Your task to perform on an android device: open chrome privacy settings Image 0: 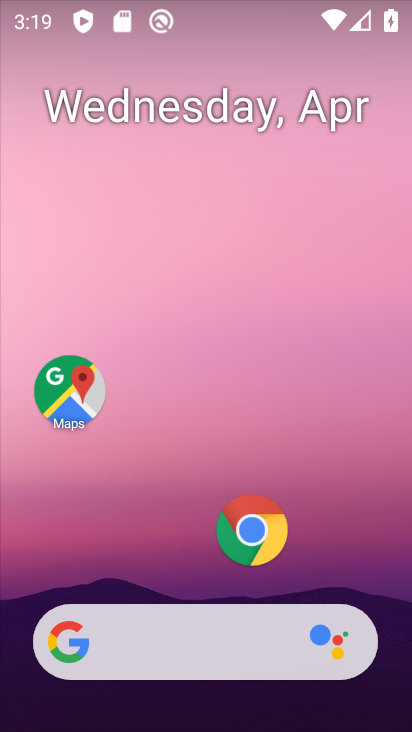
Step 0: drag from (179, 422) to (259, 77)
Your task to perform on an android device: open chrome privacy settings Image 1: 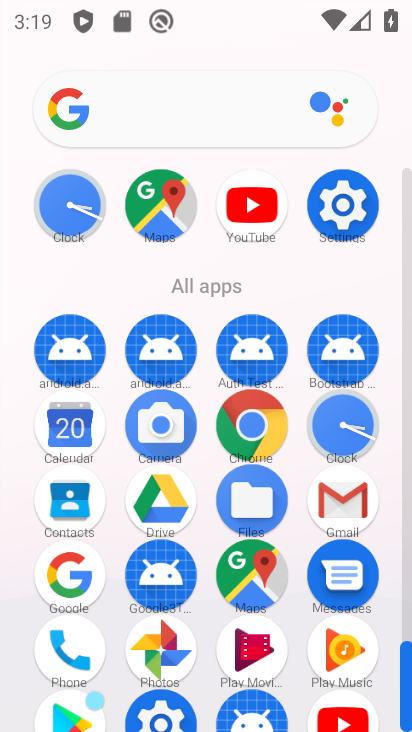
Step 1: click (344, 206)
Your task to perform on an android device: open chrome privacy settings Image 2: 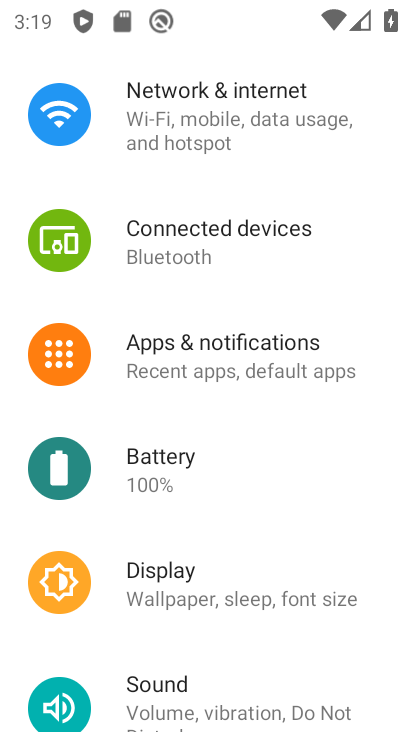
Step 2: drag from (198, 658) to (321, 161)
Your task to perform on an android device: open chrome privacy settings Image 3: 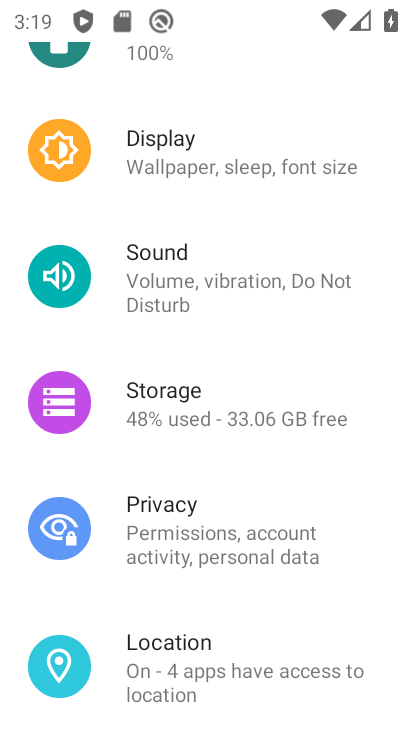
Step 3: click (186, 511)
Your task to perform on an android device: open chrome privacy settings Image 4: 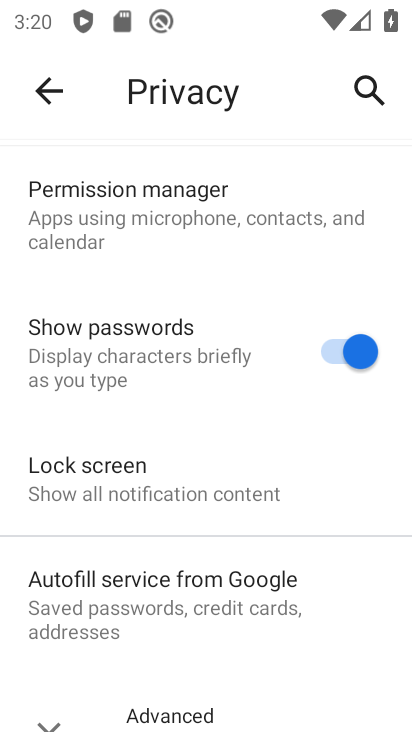
Step 4: task complete